Your task to perform on an android device: Open Google Maps and go to "Timeline" Image 0: 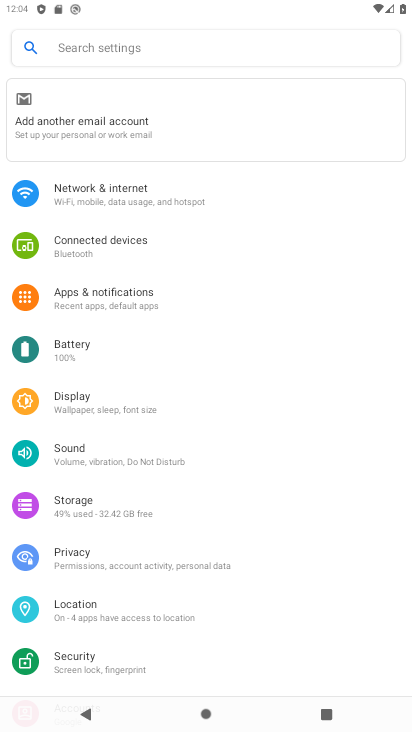
Step 0: press home button
Your task to perform on an android device: Open Google Maps and go to "Timeline" Image 1: 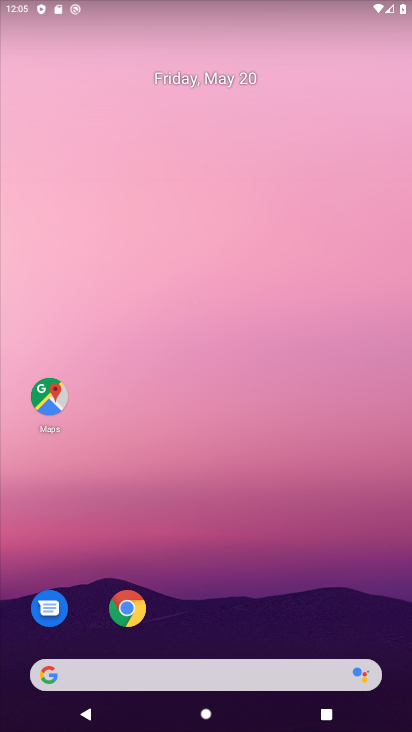
Step 1: drag from (332, 576) to (317, 138)
Your task to perform on an android device: Open Google Maps and go to "Timeline" Image 2: 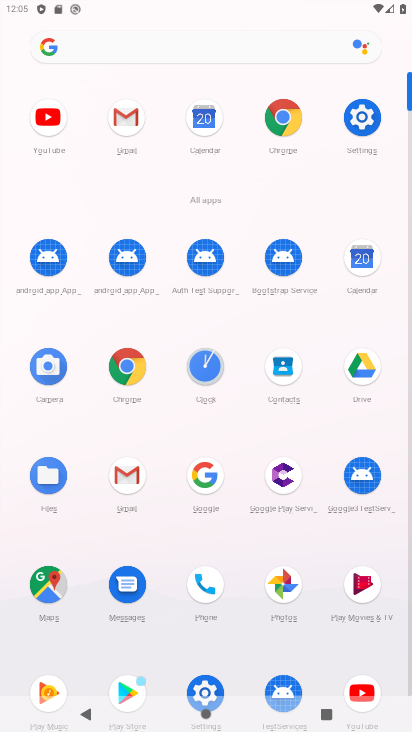
Step 2: click (41, 597)
Your task to perform on an android device: Open Google Maps and go to "Timeline" Image 3: 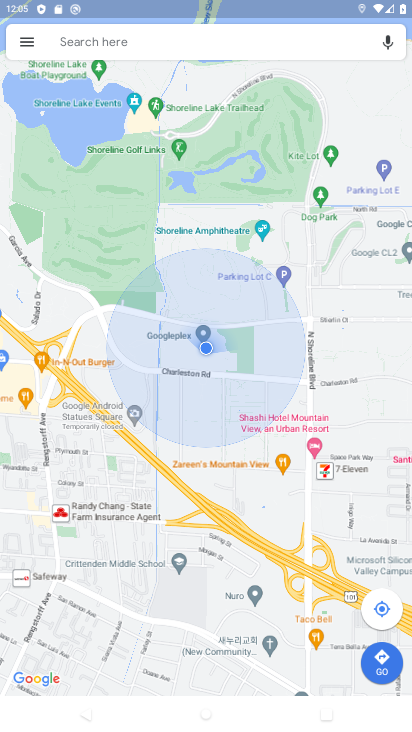
Step 3: click (22, 44)
Your task to perform on an android device: Open Google Maps and go to "Timeline" Image 4: 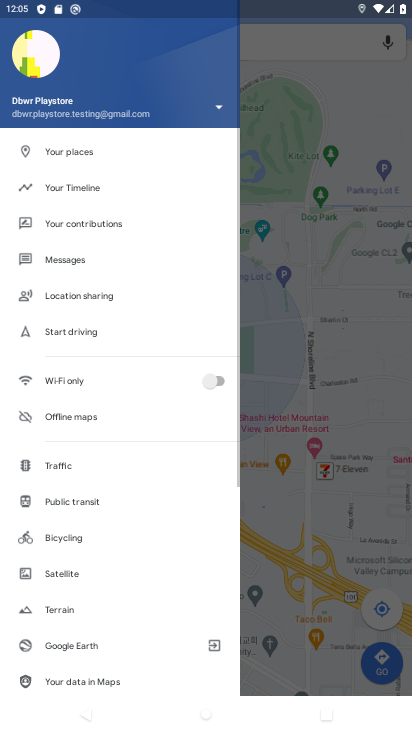
Step 4: click (92, 185)
Your task to perform on an android device: Open Google Maps and go to "Timeline" Image 5: 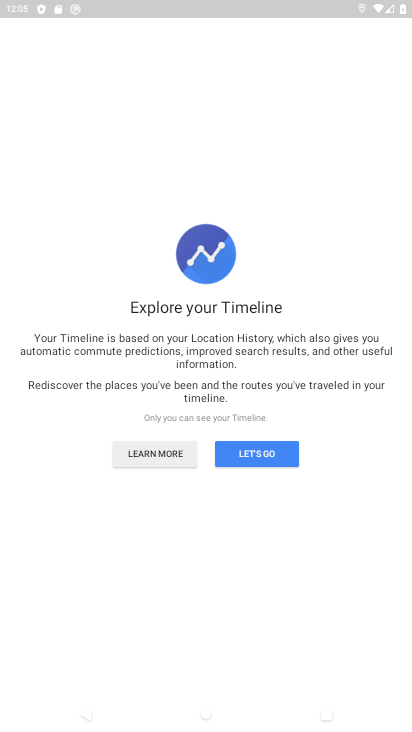
Step 5: click (262, 462)
Your task to perform on an android device: Open Google Maps and go to "Timeline" Image 6: 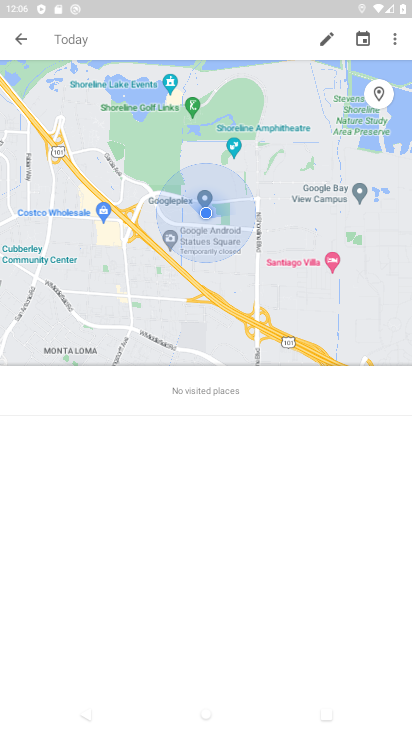
Step 6: task complete